Your task to perform on an android device: set the stopwatch Image 0: 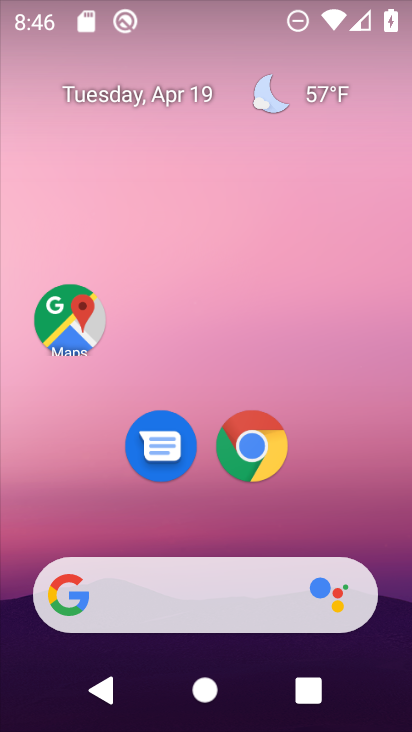
Step 0: drag from (329, 489) to (300, 65)
Your task to perform on an android device: set the stopwatch Image 1: 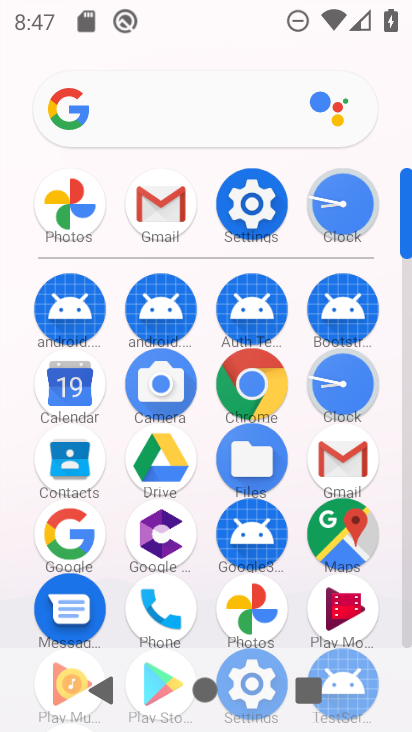
Step 1: click (338, 376)
Your task to perform on an android device: set the stopwatch Image 2: 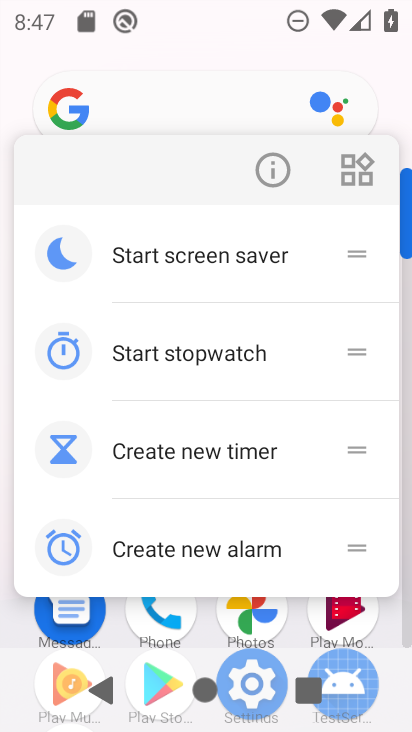
Step 2: click (193, 353)
Your task to perform on an android device: set the stopwatch Image 3: 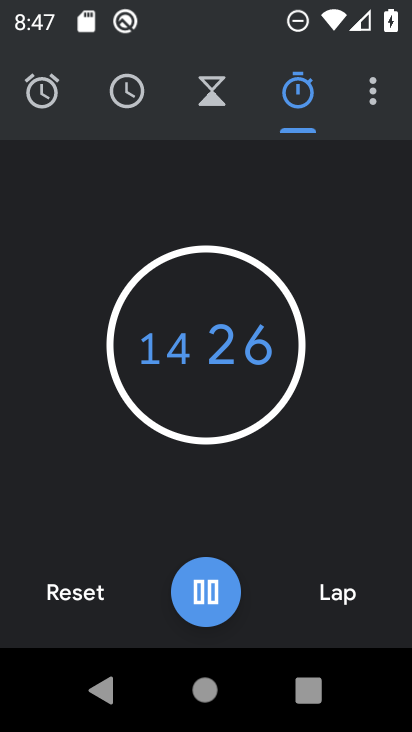
Step 3: click (230, 599)
Your task to perform on an android device: set the stopwatch Image 4: 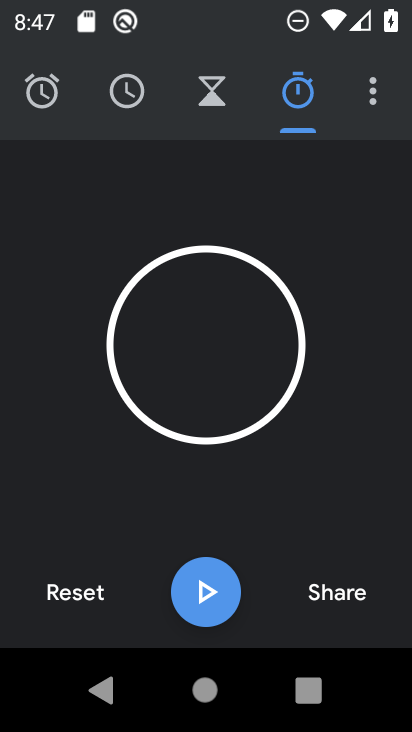
Step 4: task complete